Your task to perform on an android device: What's on my calendar tomorrow? Image 0: 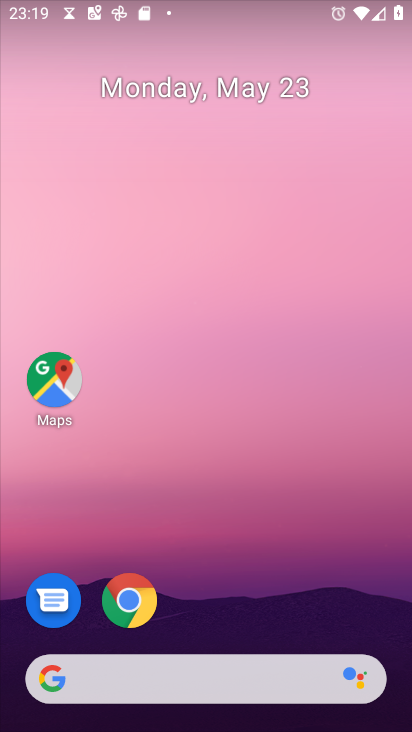
Step 0: drag from (226, 682) to (239, 148)
Your task to perform on an android device: What's on my calendar tomorrow? Image 1: 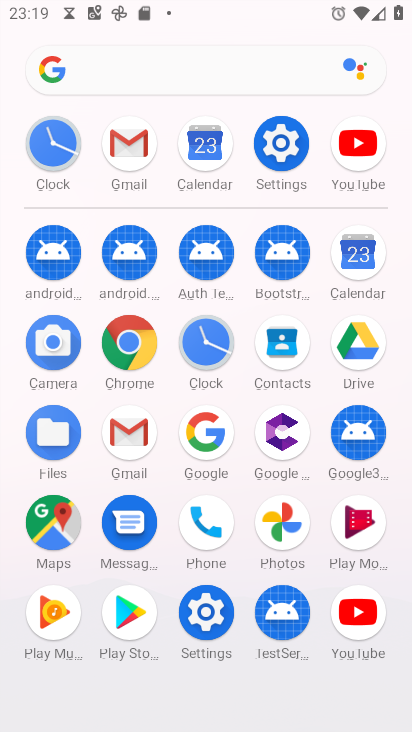
Step 1: click (365, 257)
Your task to perform on an android device: What's on my calendar tomorrow? Image 2: 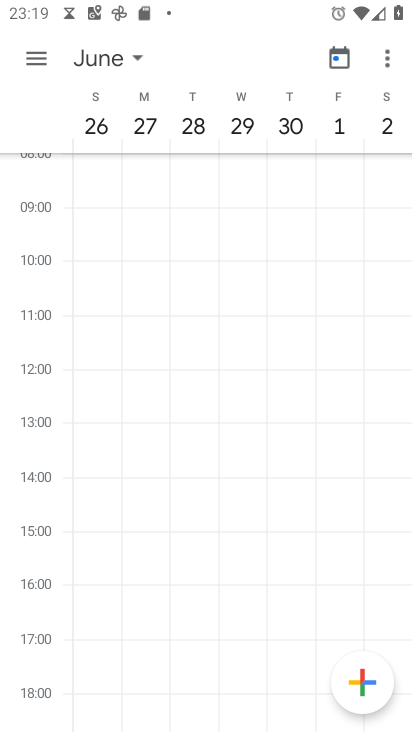
Step 2: click (136, 56)
Your task to perform on an android device: What's on my calendar tomorrow? Image 3: 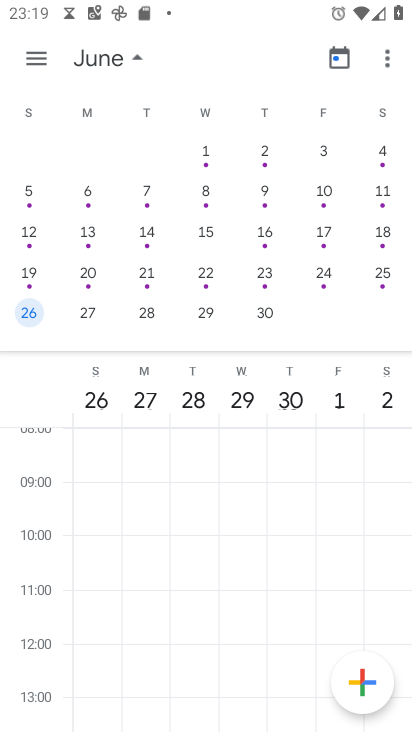
Step 3: drag from (44, 237) to (397, 233)
Your task to perform on an android device: What's on my calendar tomorrow? Image 4: 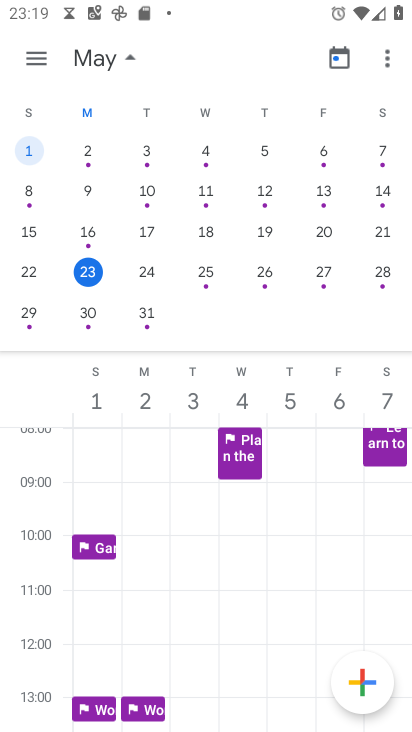
Step 4: click (144, 271)
Your task to perform on an android device: What's on my calendar tomorrow? Image 5: 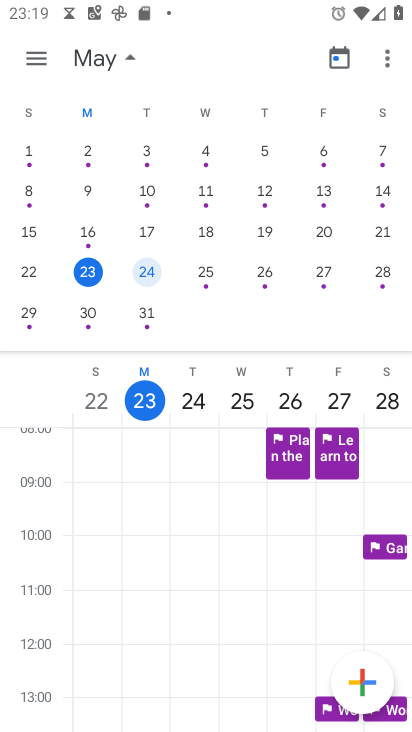
Step 5: click (130, 54)
Your task to perform on an android device: What's on my calendar tomorrow? Image 6: 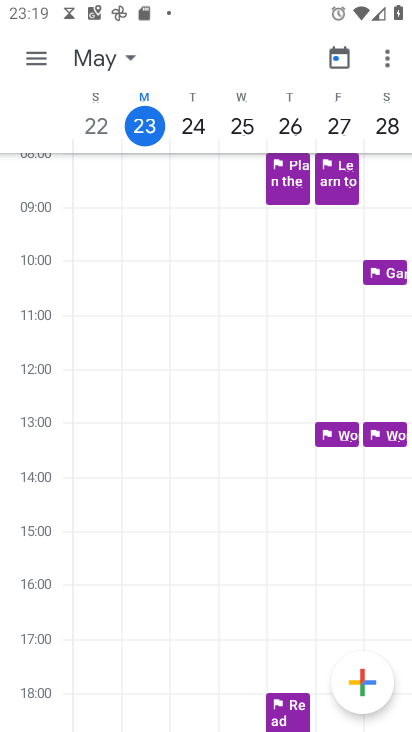
Step 6: task complete